Your task to perform on an android device: Show me popular games on the Play Store Image 0: 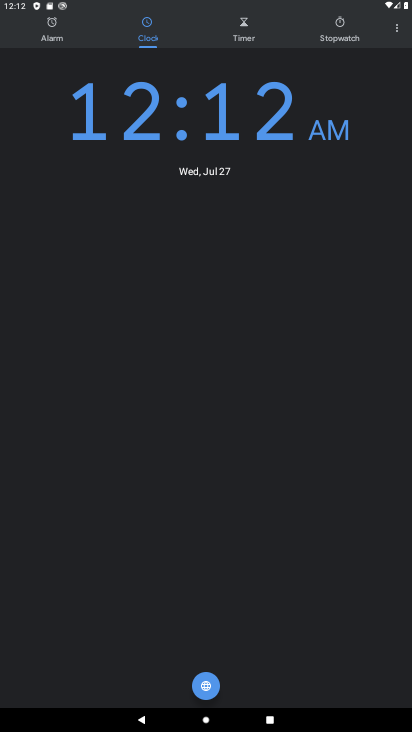
Step 0: press home button
Your task to perform on an android device: Show me popular games on the Play Store Image 1: 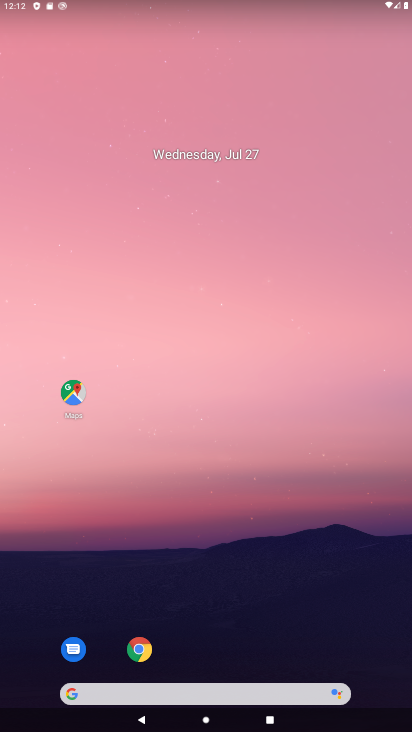
Step 1: drag from (228, 623) to (165, 100)
Your task to perform on an android device: Show me popular games on the Play Store Image 2: 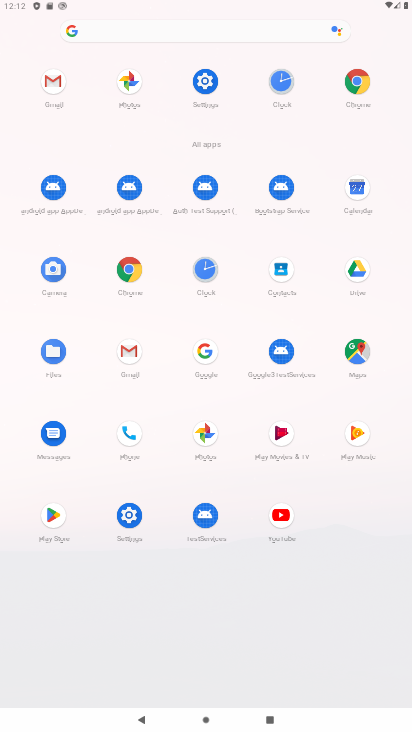
Step 2: click (54, 512)
Your task to perform on an android device: Show me popular games on the Play Store Image 3: 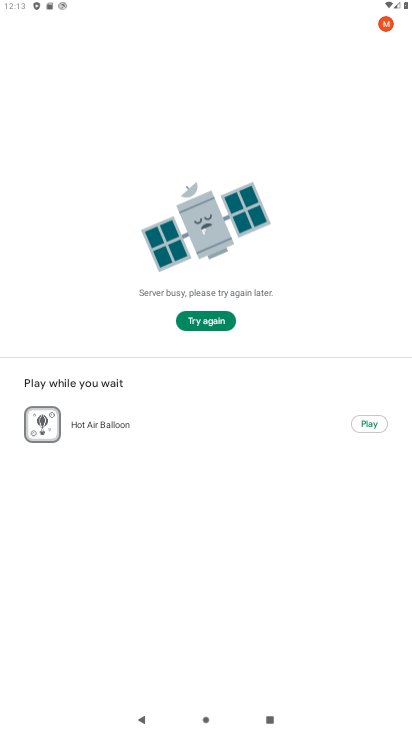
Step 3: click (205, 315)
Your task to perform on an android device: Show me popular games on the Play Store Image 4: 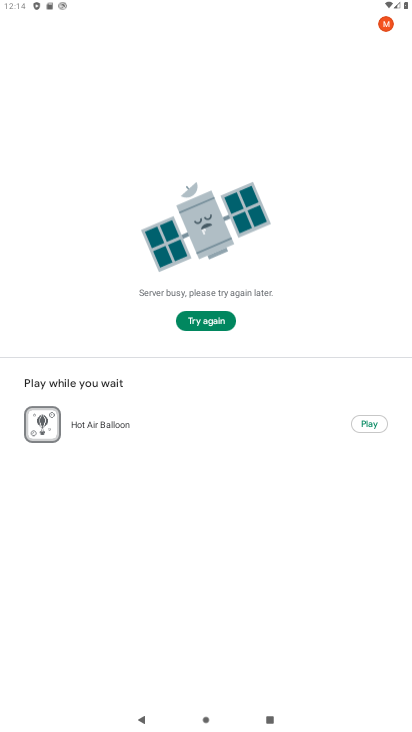
Step 4: click (204, 325)
Your task to perform on an android device: Show me popular games on the Play Store Image 5: 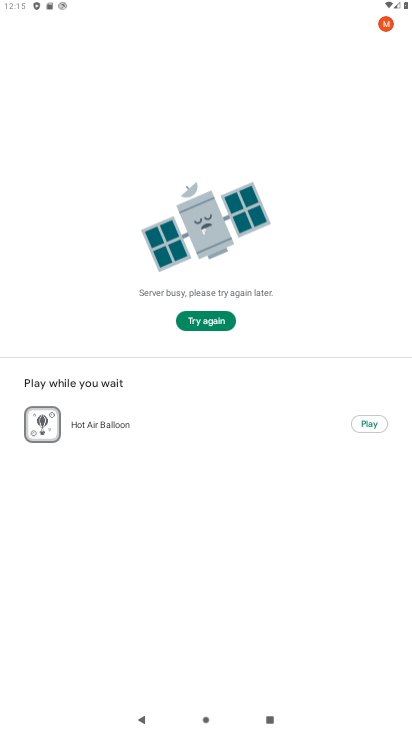
Step 5: task complete